Your task to perform on an android device: change alarm snooze length Image 0: 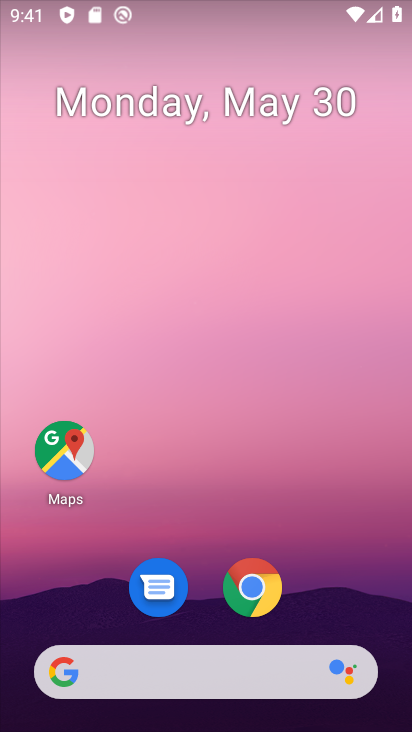
Step 0: drag from (317, 573) to (223, 6)
Your task to perform on an android device: change alarm snooze length Image 1: 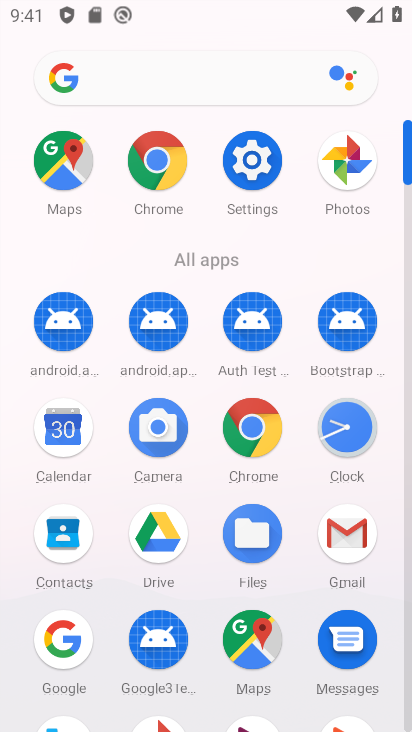
Step 1: drag from (6, 593) to (15, 209)
Your task to perform on an android device: change alarm snooze length Image 2: 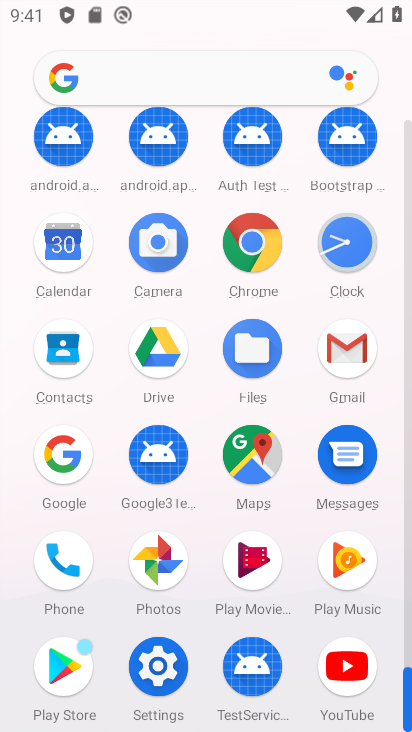
Step 2: click (352, 239)
Your task to perform on an android device: change alarm snooze length Image 3: 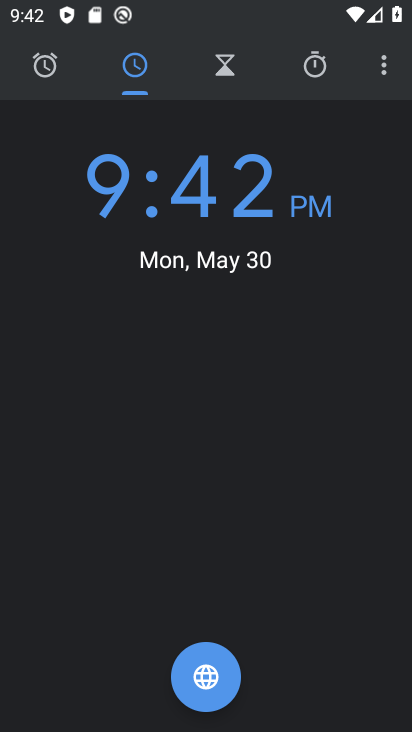
Step 3: click (295, 73)
Your task to perform on an android device: change alarm snooze length Image 4: 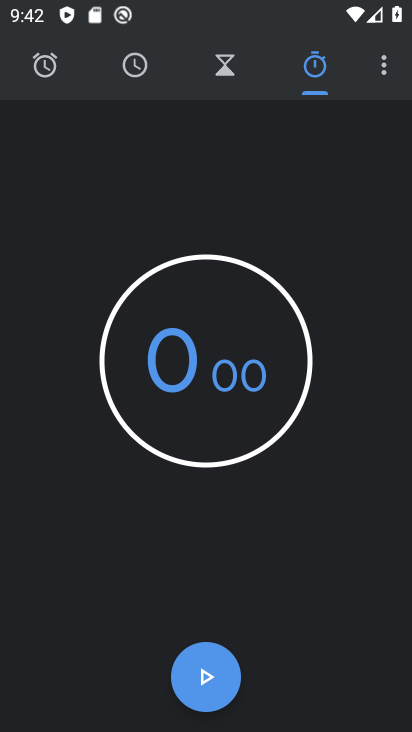
Step 4: drag from (383, 64) to (259, 125)
Your task to perform on an android device: change alarm snooze length Image 5: 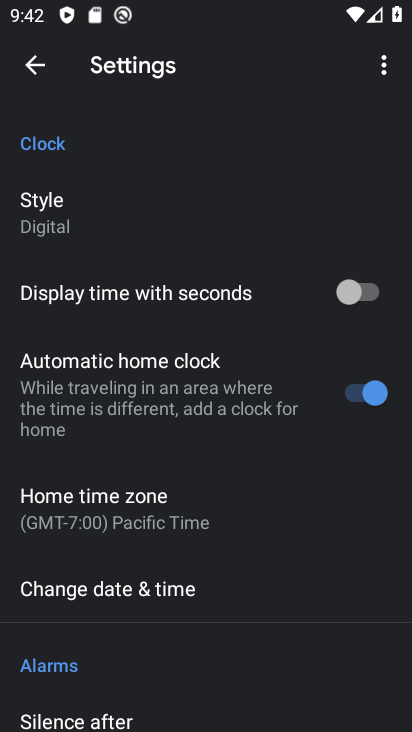
Step 5: drag from (188, 624) to (248, 175)
Your task to perform on an android device: change alarm snooze length Image 6: 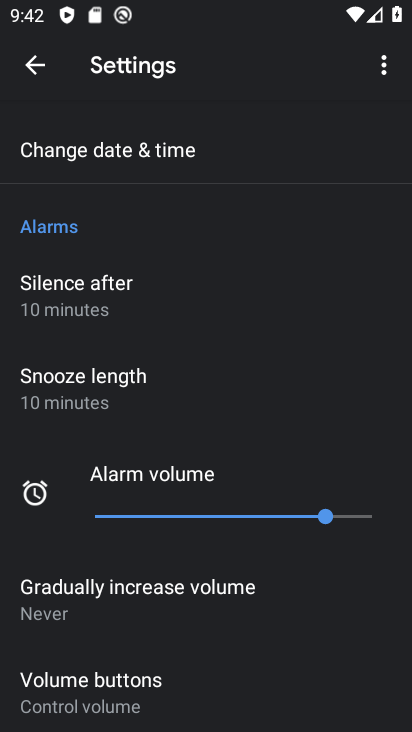
Step 6: click (139, 378)
Your task to perform on an android device: change alarm snooze length Image 7: 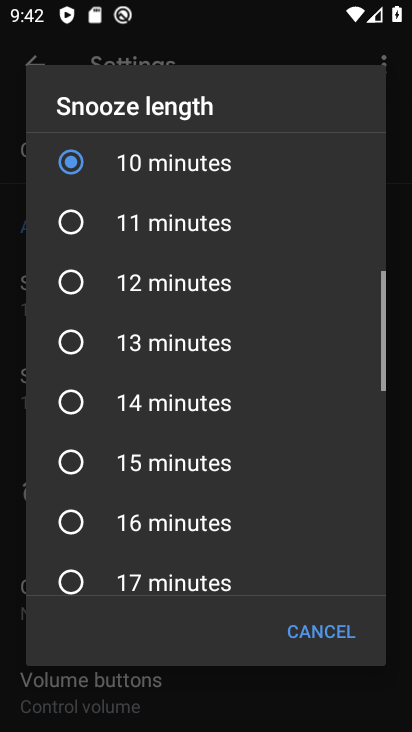
Step 7: click (160, 220)
Your task to perform on an android device: change alarm snooze length Image 8: 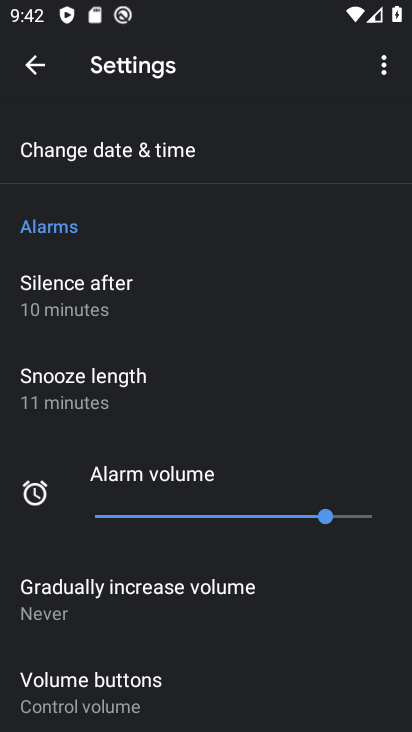
Step 8: task complete